Your task to perform on an android device: toggle wifi Image 0: 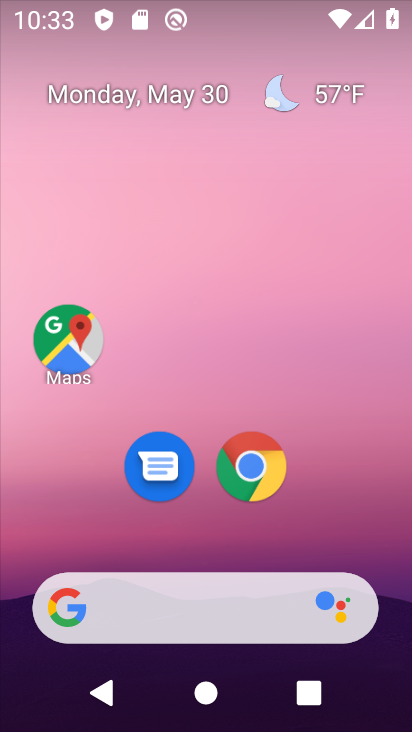
Step 0: drag from (251, 0) to (263, 193)
Your task to perform on an android device: toggle wifi Image 1: 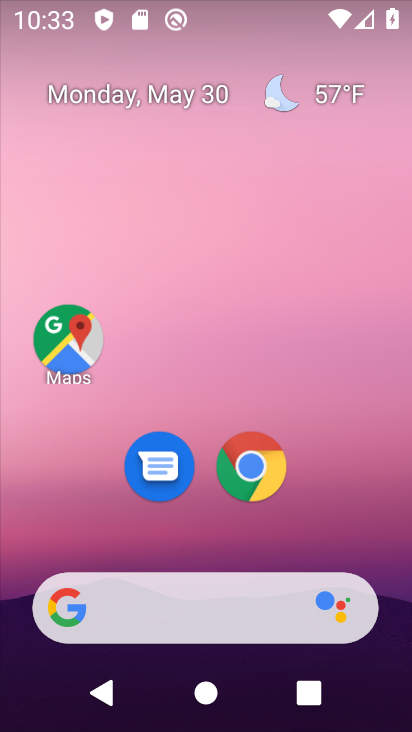
Step 1: click (53, 36)
Your task to perform on an android device: toggle wifi Image 2: 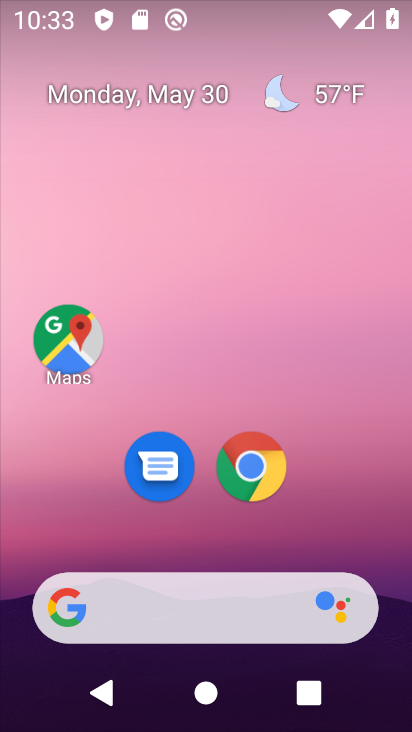
Step 2: drag from (227, 0) to (199, 284)
Your task to perform on an android device: toggle wifi Image 3: 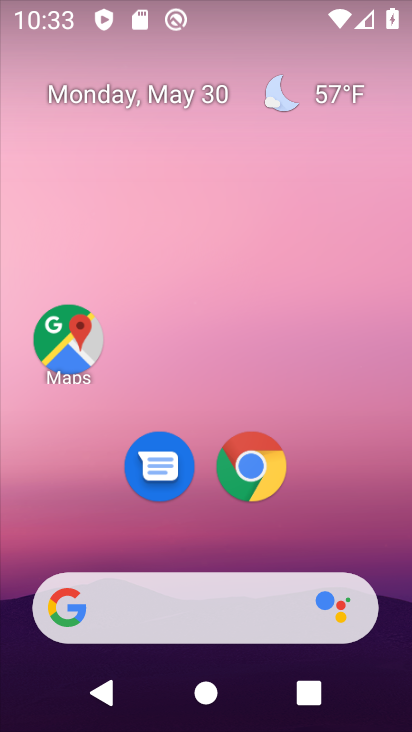
Step 3: drag from (215, 49) to (115, 196)
Your task to perform on an android device: toggle wifi Image 4: 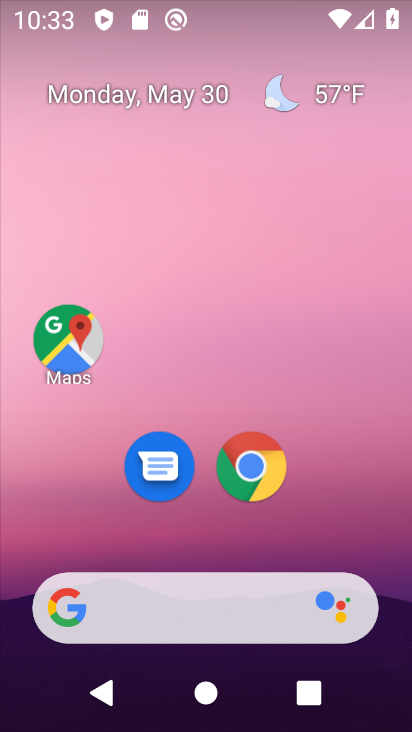
Step 4: drag from (186, 2) to (101, 589)
Your task to perform on an android device: toggle wifi Image 5: 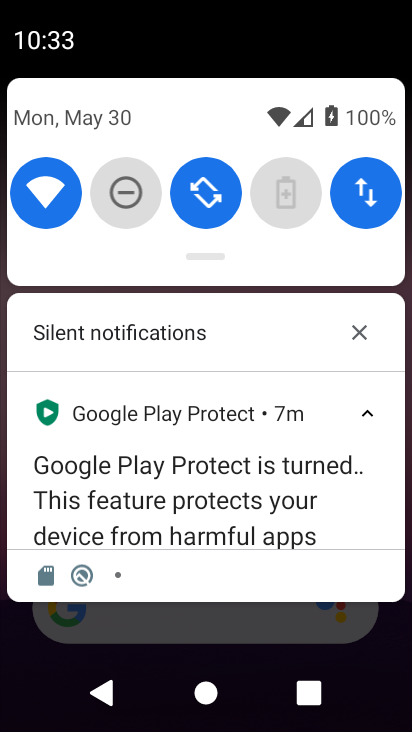
Step 5: click (48, 178)
Your task to perform on an android device: toggle wifi Image 6: 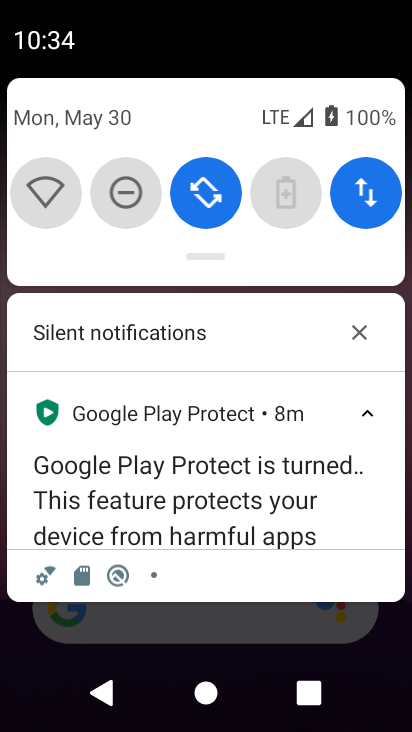
Step 6: task complete